Your task to perform on an android device: turn off improve location accuracy Image 0: 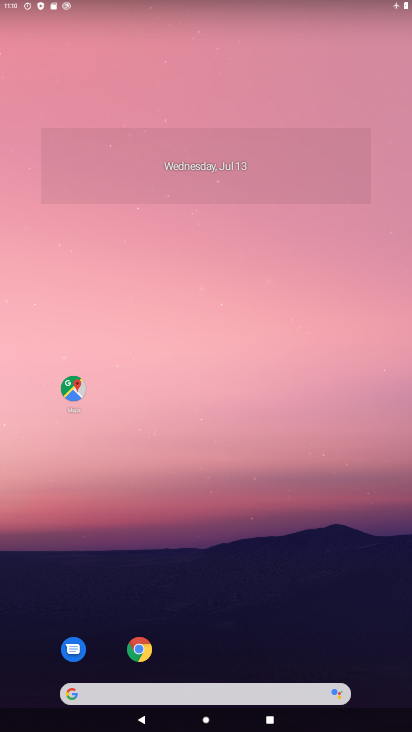
Step 0: drag from (184, 690) to (187, 297)
Your task to perform on an android device: turn off improve location accuracy Image 1: 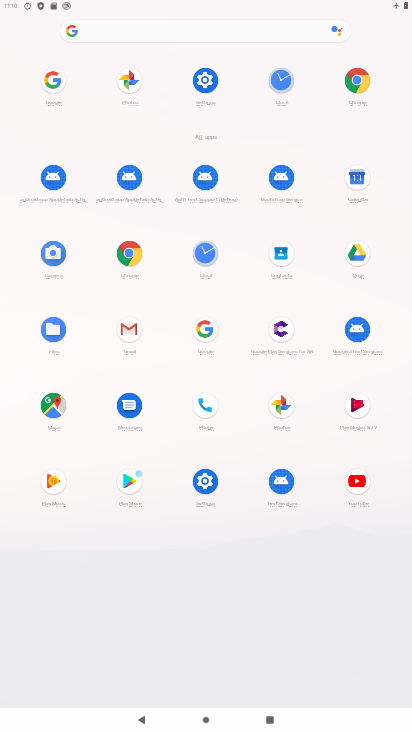
Step 1: click (206, 82)
Your task to perform on an android device: turn off improve location accuracy Image 2: 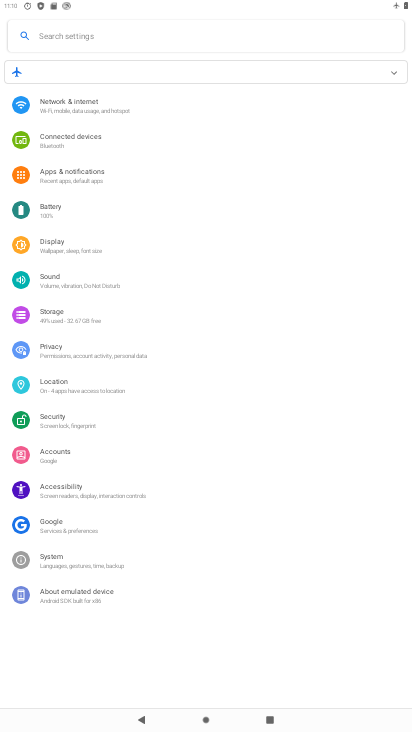
Step 2: click (63, 385)
Your task to perform on an android device: turn off improve location accuracy Image 3: 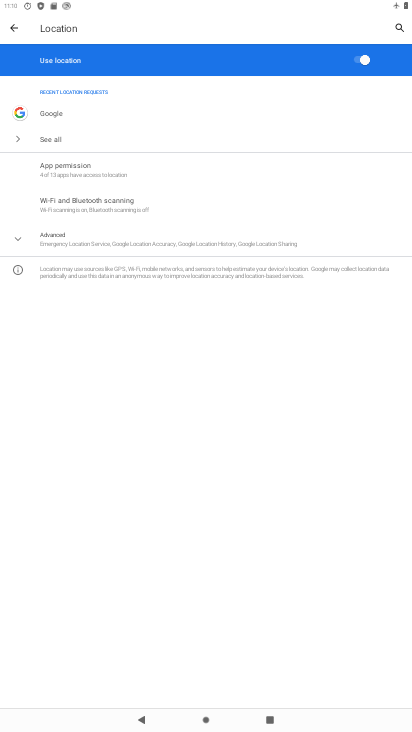
Step 3: click (110, 244)
Your task to perform on an android device: turn off improve location accuracy Image 4: 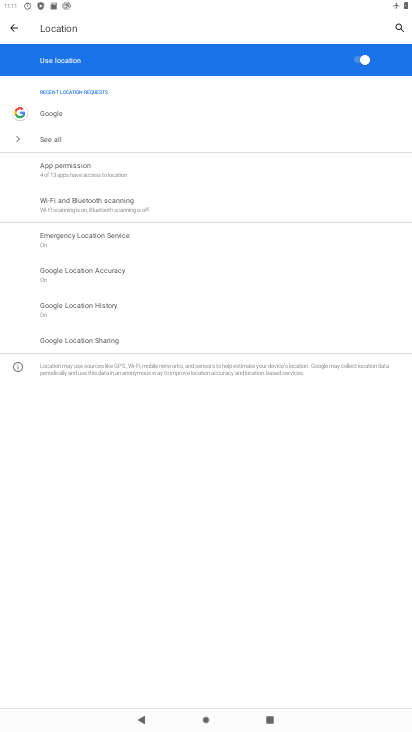
Step 4: click (107, 264)
Your task to perform on an android device: turn off improve location accuracy Image 5: 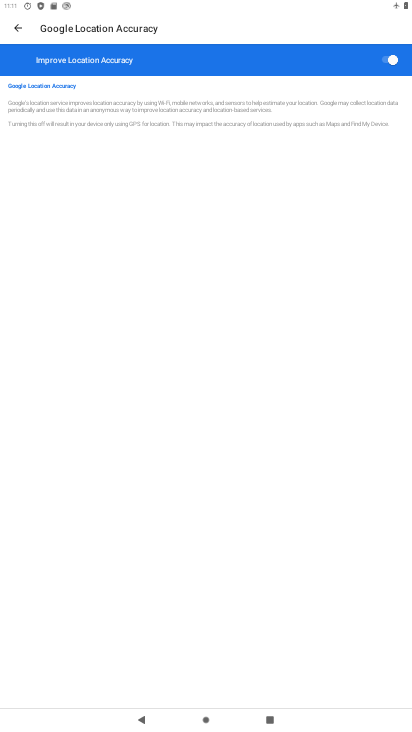
Step 5: click (392, 64)
Your task to perform on an android device: turn off improve location accuracy Image 6: 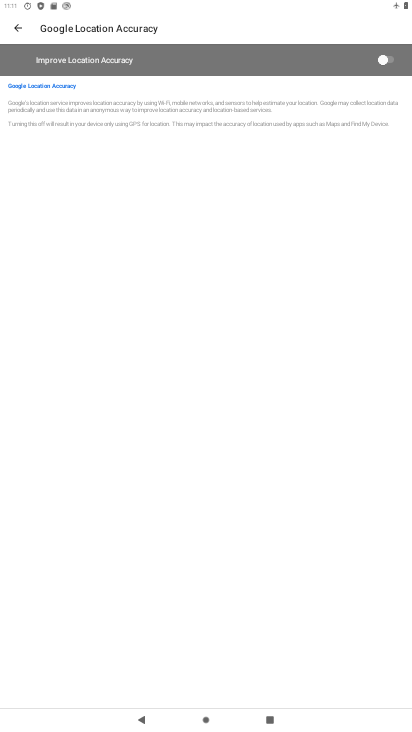
Step 6: task complete